Your task to perform on an android device: turn off wifi Image 0: 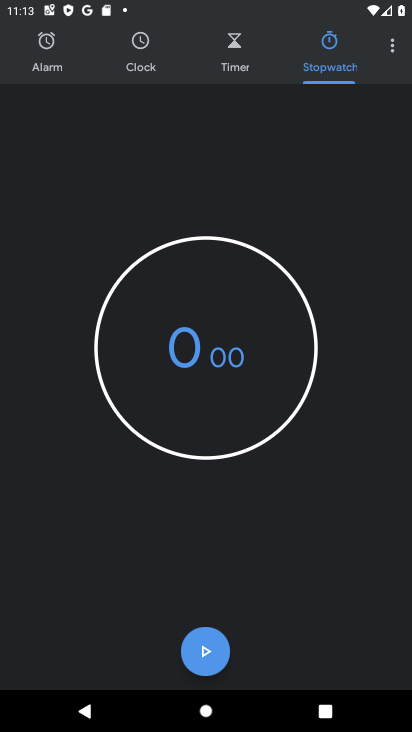
Step 0: press home button
Your task to perform on an android device: turn off wifi Image 1: 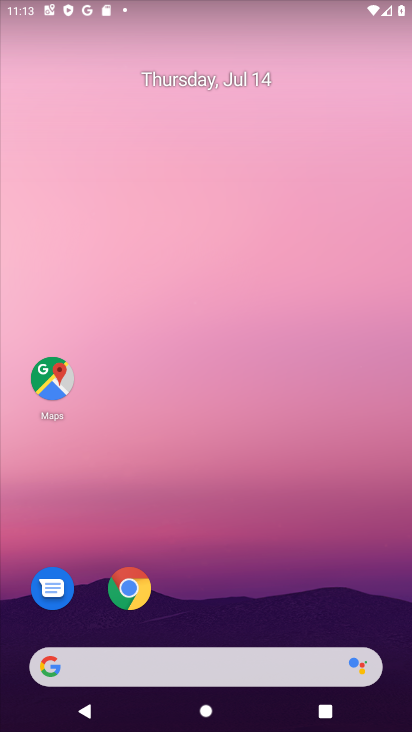
Step 1: drag from (204, 669) to (304, 14)
Your task to perform on an android device: turn off wifi Image 2: 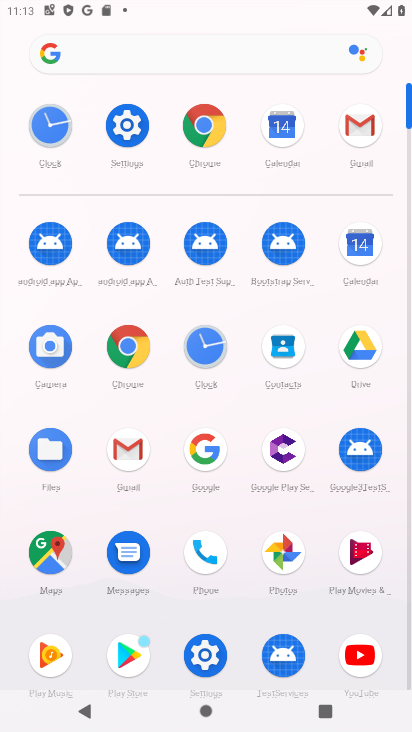
Step 2: click (128, 123)
Your task to perform on an android device: turn off wifi Image 3: 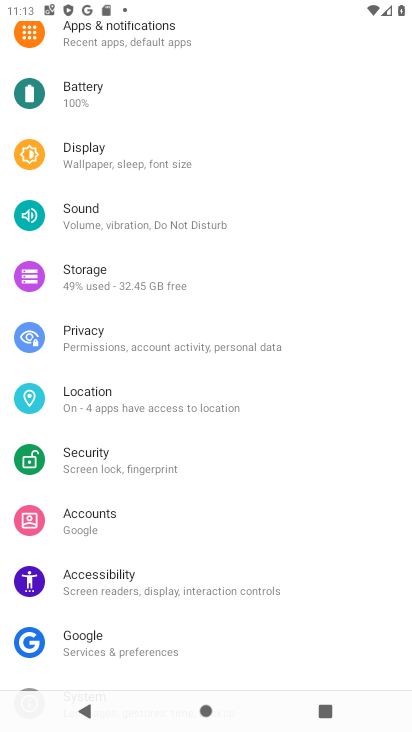
Step 3: drag from (276, 63) to (145, 578)
Your task to perform on an android device: turn off wifi Image 4: 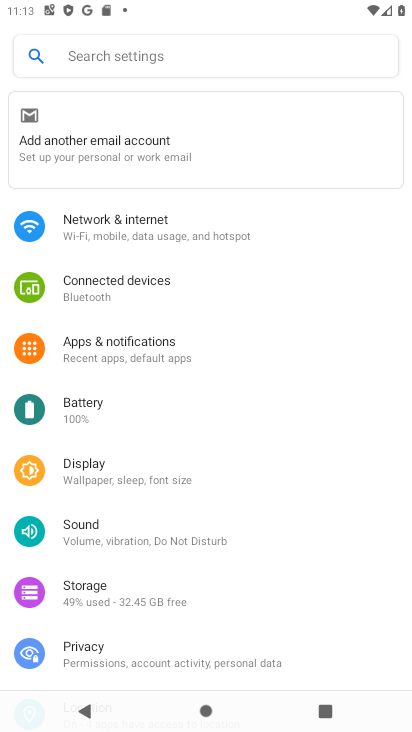
Step 4: click (134, 231)
Your task to perform on an android device: turn off wifi Image 5: 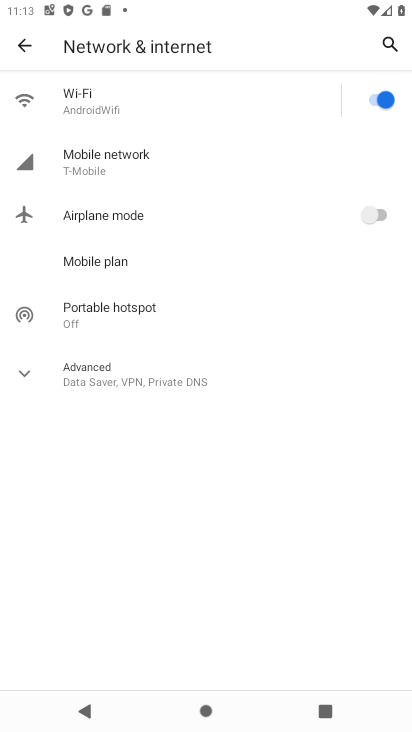
Step 5: click (372, 100)
Your task to perform on an android device: turn off wifi Image 6: 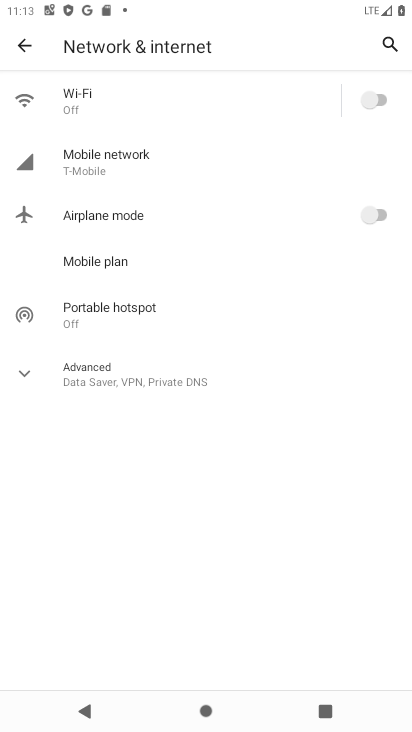
Step 6: task complete